Your task to perform on an android device: Go to accessibility settings Image 0: 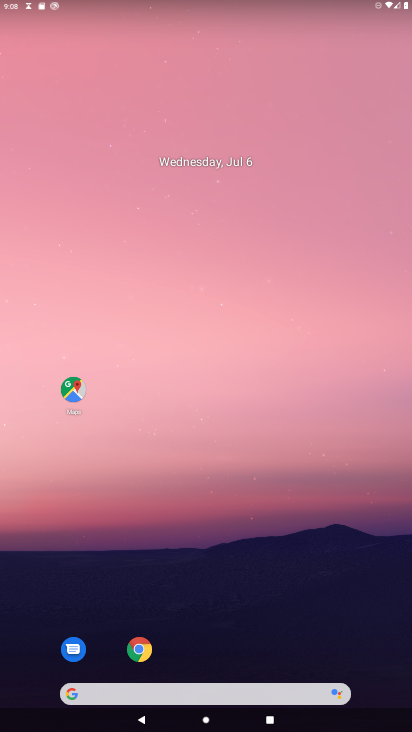
Step 0: drag from (300, 665) to (213, 250)
Your task to perform on an android device: Go to accessibility settings Image 1: 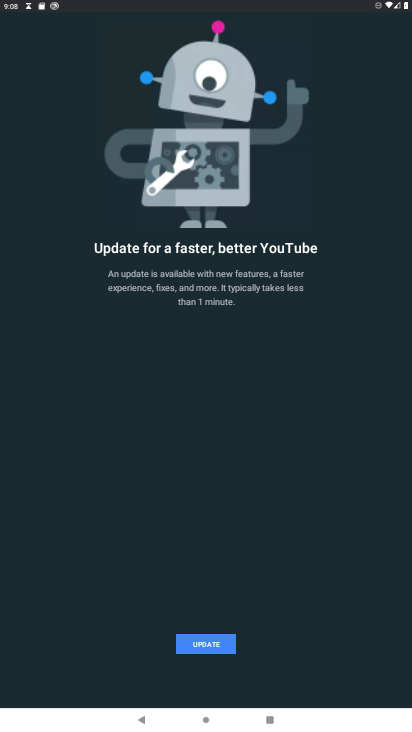
Step 1: press back button
Your task to perform on an android device: Go to accessibility settings Image 2: 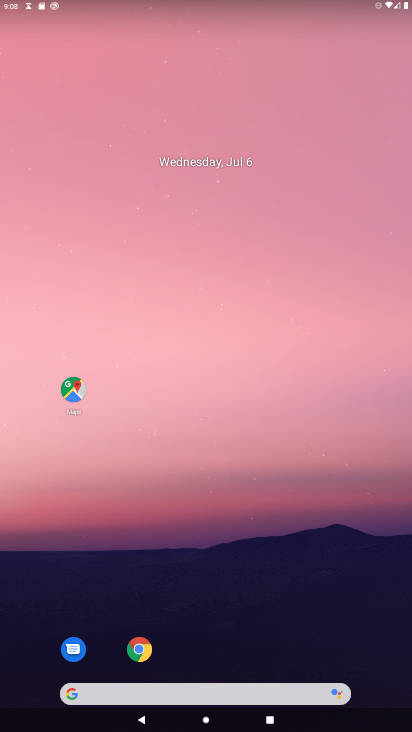
Step 2: drag from (242, 596) to (198, 132)
Your task to perform on an android device: Go to accessibility settings Image 3: 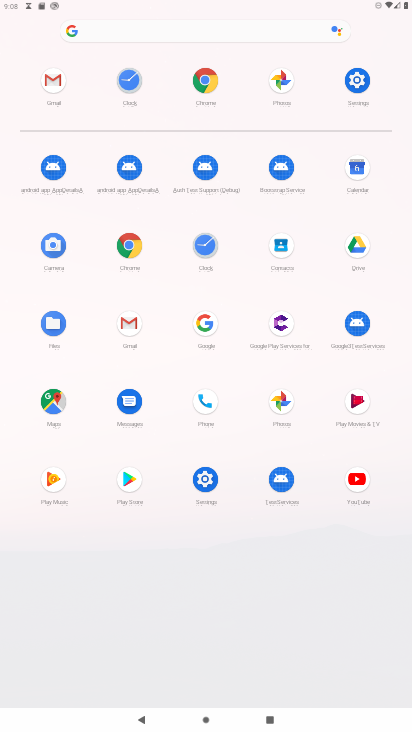
Step 3: click (210, 479)
Your task to perform on an android device: Go to accessibility settings Image 4: 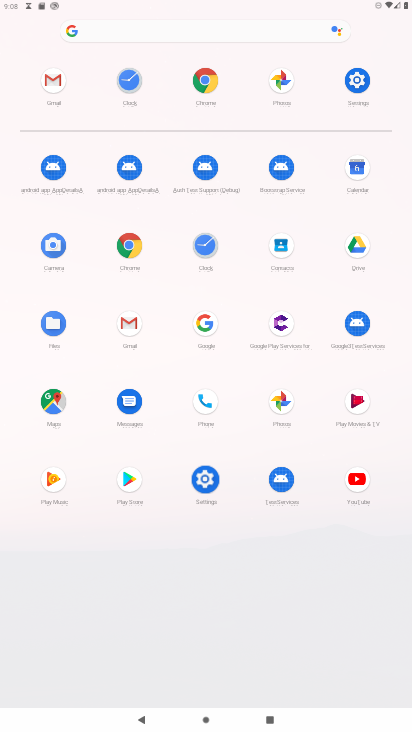
Step 4: click (208, 479)
Your task to perform on an android device: Go to accessibility settings Image 5: 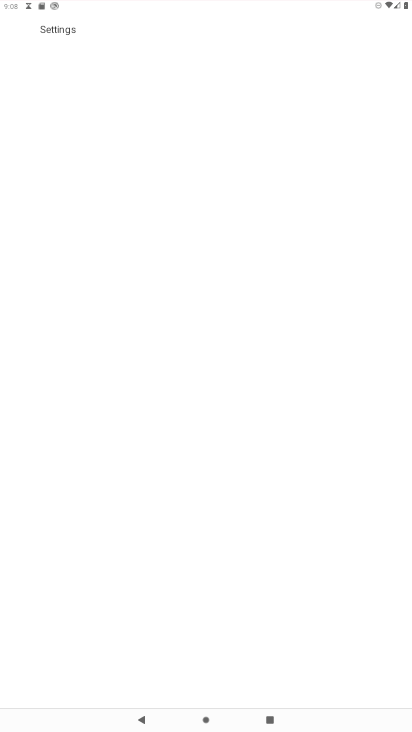
Step 5: click (208, 479)
Your task to perform on an android device: Go to accessibility settings Image 6: 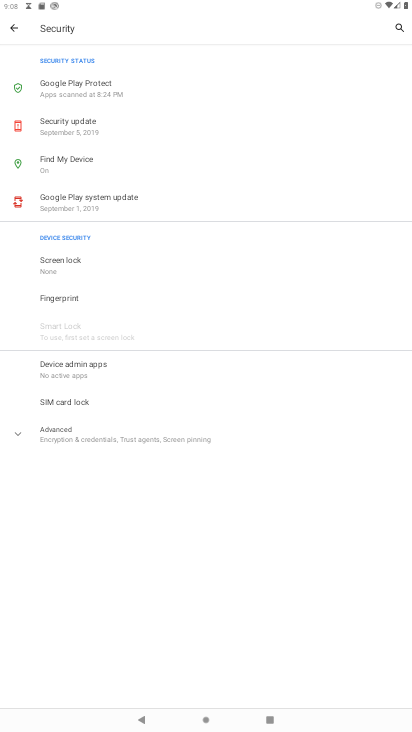
Step 6: click (14, 25)
Your task to perform on an android device: Go to accessibility settings Image 7: 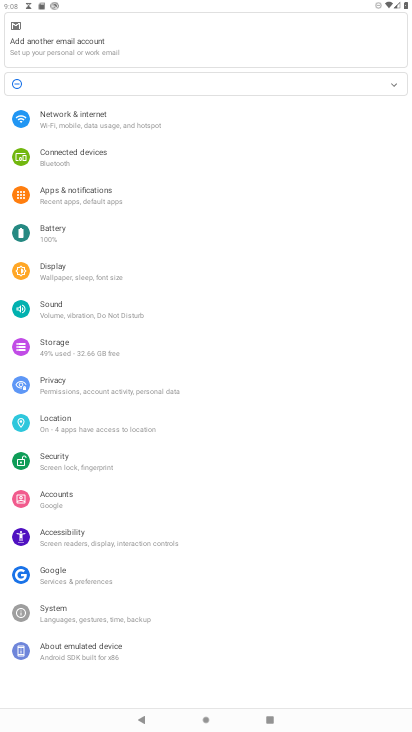
Step 7: click (69, 545)
Your task to perform on an android device: Go to accessibility settings Image 8: 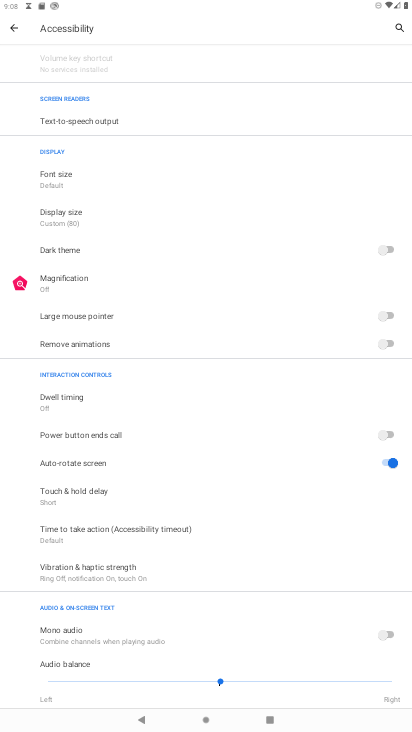
Step 8: click (11, 27)
Your task to perform on an android device: Go to accessibility settings Image 9: 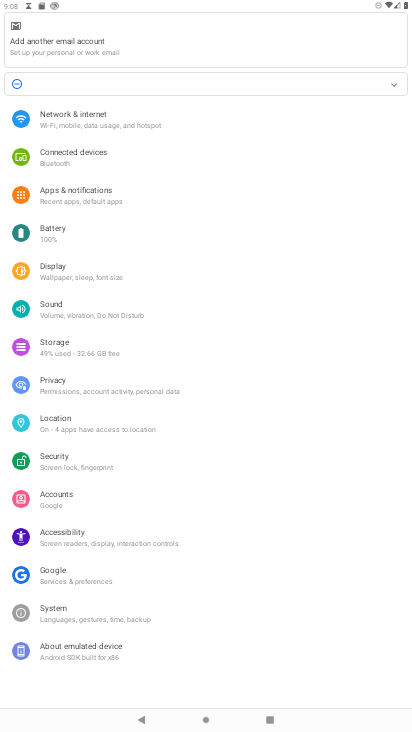
Step 9: click (56, 532)
Your task to perform on an android device: Go to accessibility settings Image 10: 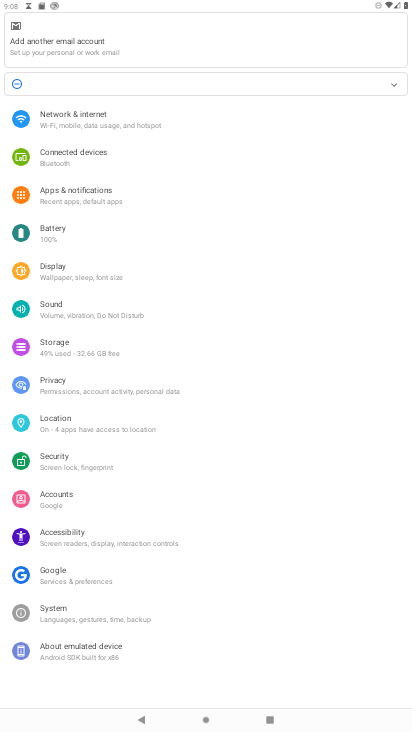
Step 10: click (56, 532)
Your task to perform on an android device: Go to accessibility settings Image 11: 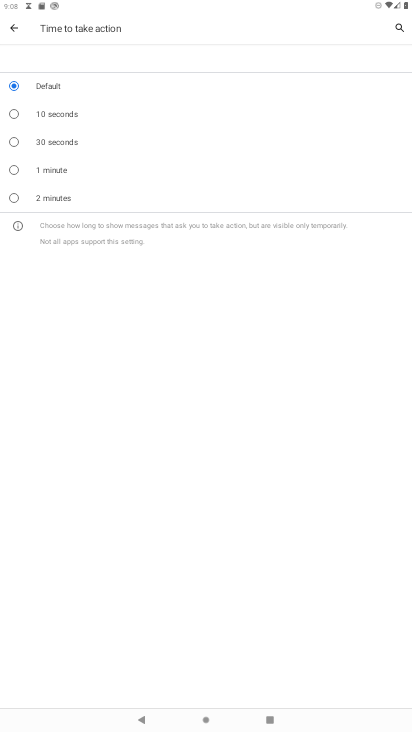
Step 11: task complete